Your task to perform on an android device: Open Google Chrome and open the bookmarks view Image 0: 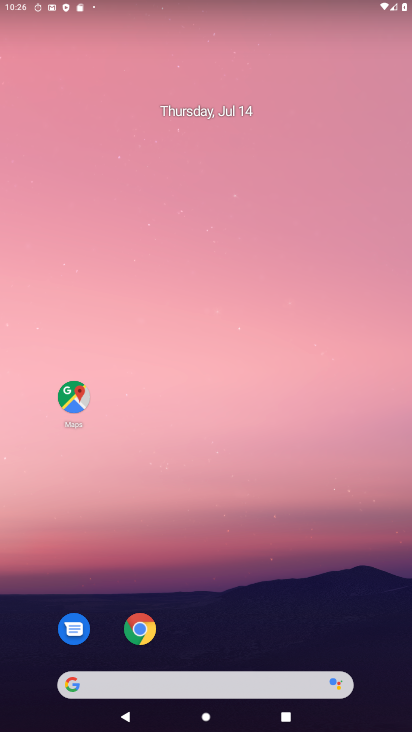
Step 0: click (146, 625)
Your task to perform on an android device: Open Google Chrome and open the bookmarks view Image 1: 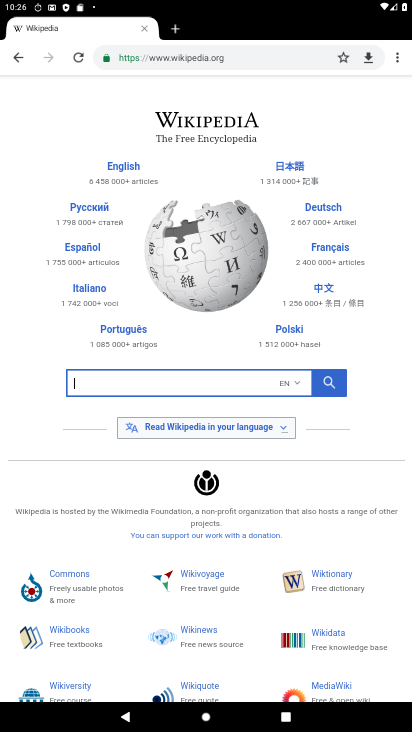
Step 1: click (401, 60)
Your task to perform on an android device: Open Google Chrome and open the bookmarks view Image 2: 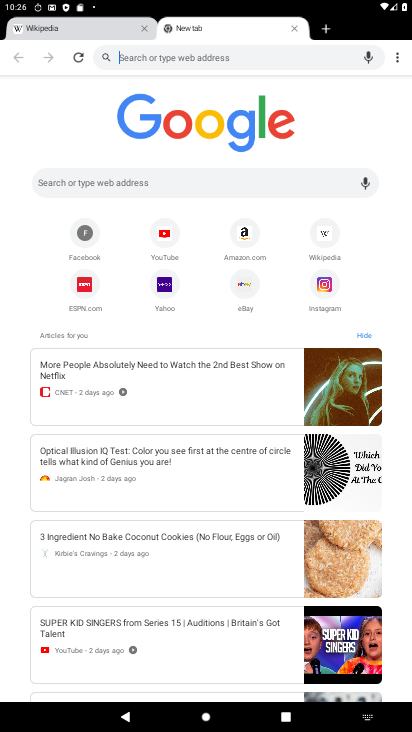
Step 2: click (399, 59)
Your task to perform on an android device: Open Google Chrome and open the bookmarks view Image 3: 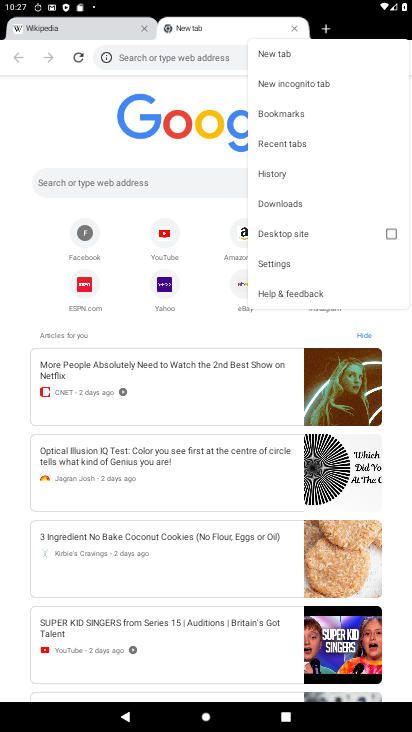
Step 3: click (301, 118)
Your task to perform on an android device: Open Google Chrome and open the bookmarks view Image 4: 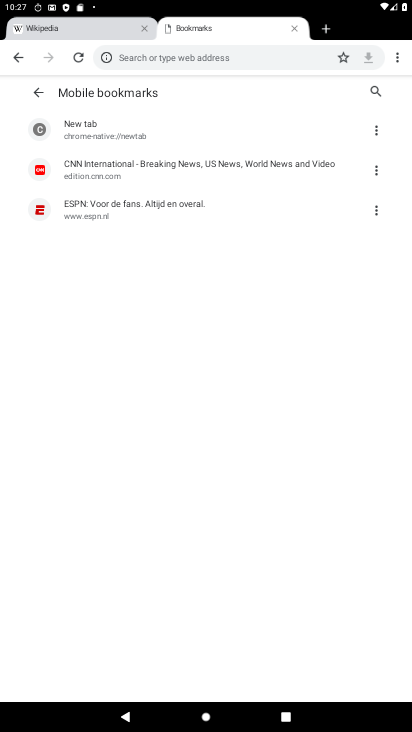
Step 4: task complete